Your task to perform on an android device: turn off airplane mode Image 0: 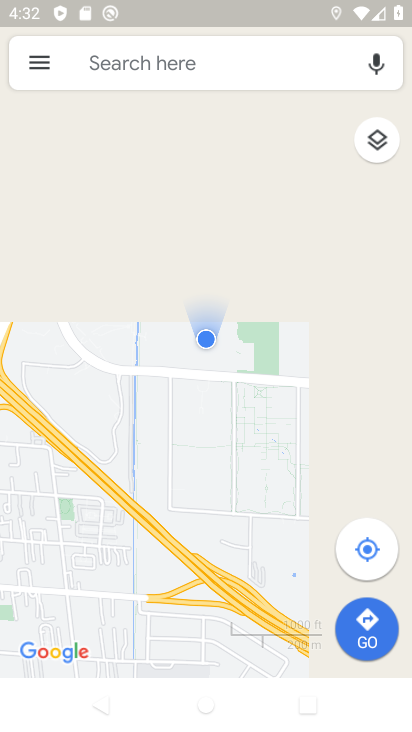
Step 0: press back button
Your task to perform on an android device: turn off airplane mode Image 1: 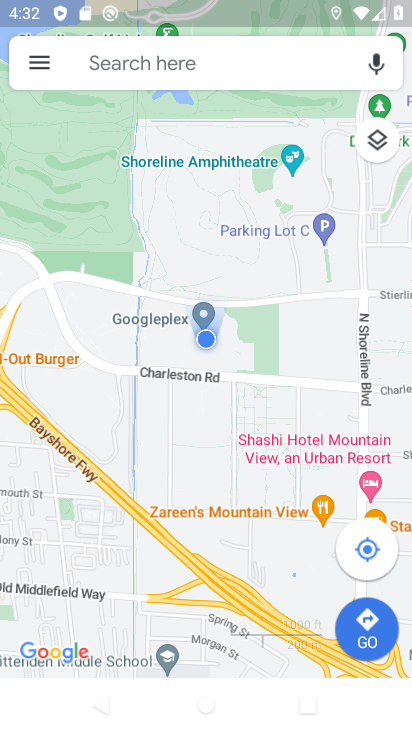
Step 1: press back button
Your task to perform on an android device: turn off airplane mode Image 2: 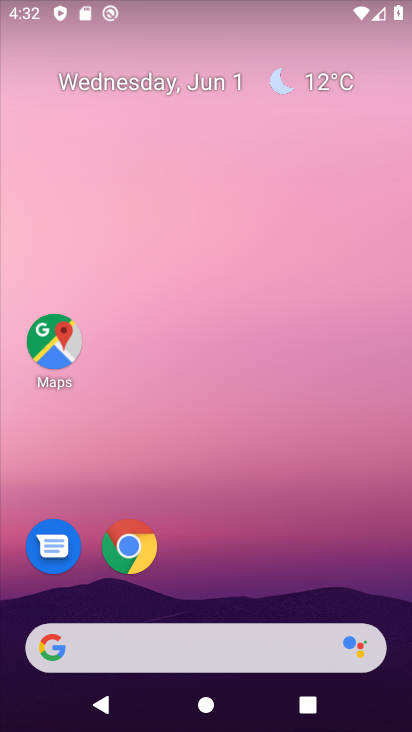
Step 2: drag from (265, 538) to (215, 3)
Your task to perform on an android device: turn off airplane mode Image 3: 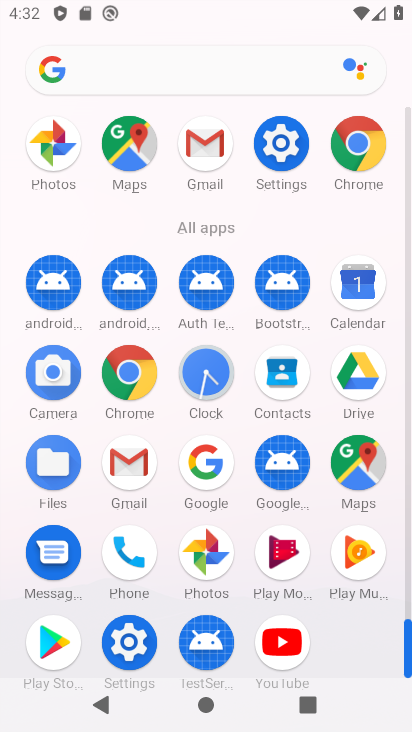
Step 3: click (283, 140)
Your task to perform on an android device: turn off airplane mode Image 4: 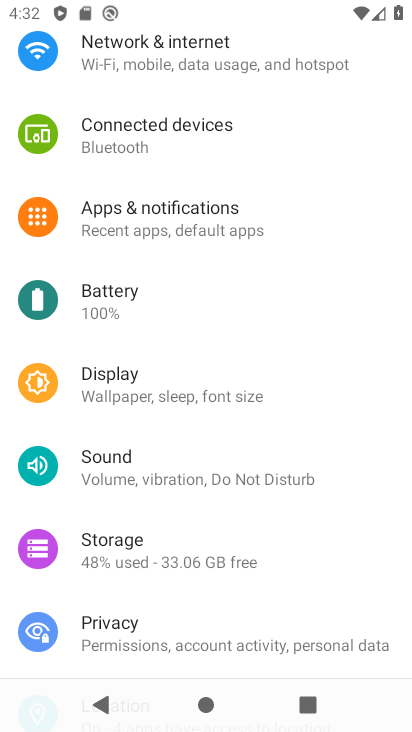
Step 4: drag from (283, 160) to (267, 540)
Your task to perform on an android device: turn off airplane mode Image 5: 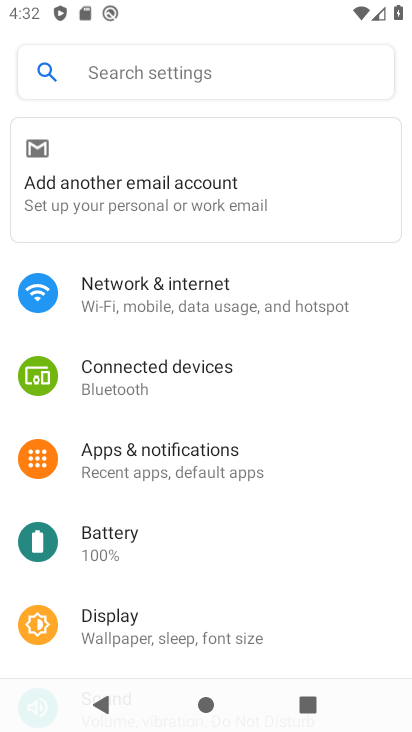
Step 5: click (202, 312)
Your task to perform on an android device: turn off airplane mode Image 6: 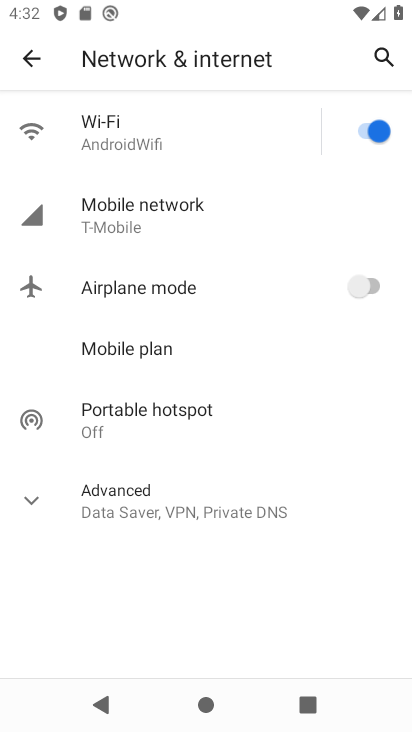
Step 6: click (44, 490)
Your task to perform on an android device: turn off airplane mode Image 7: 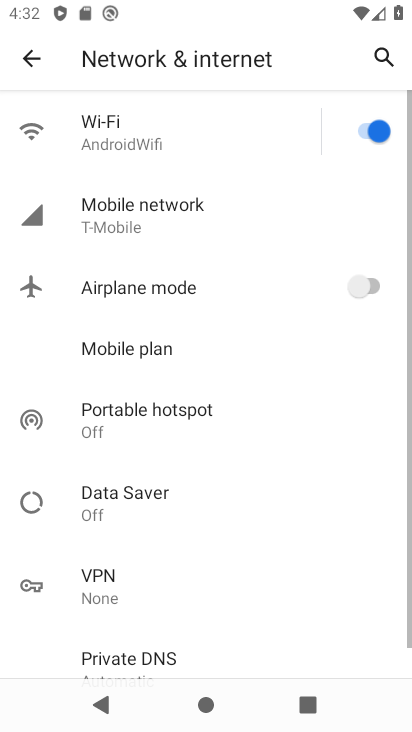
Step 7: task complete